Your task to perform on an android device: turn on notifications settings in the gmail app Image 0: 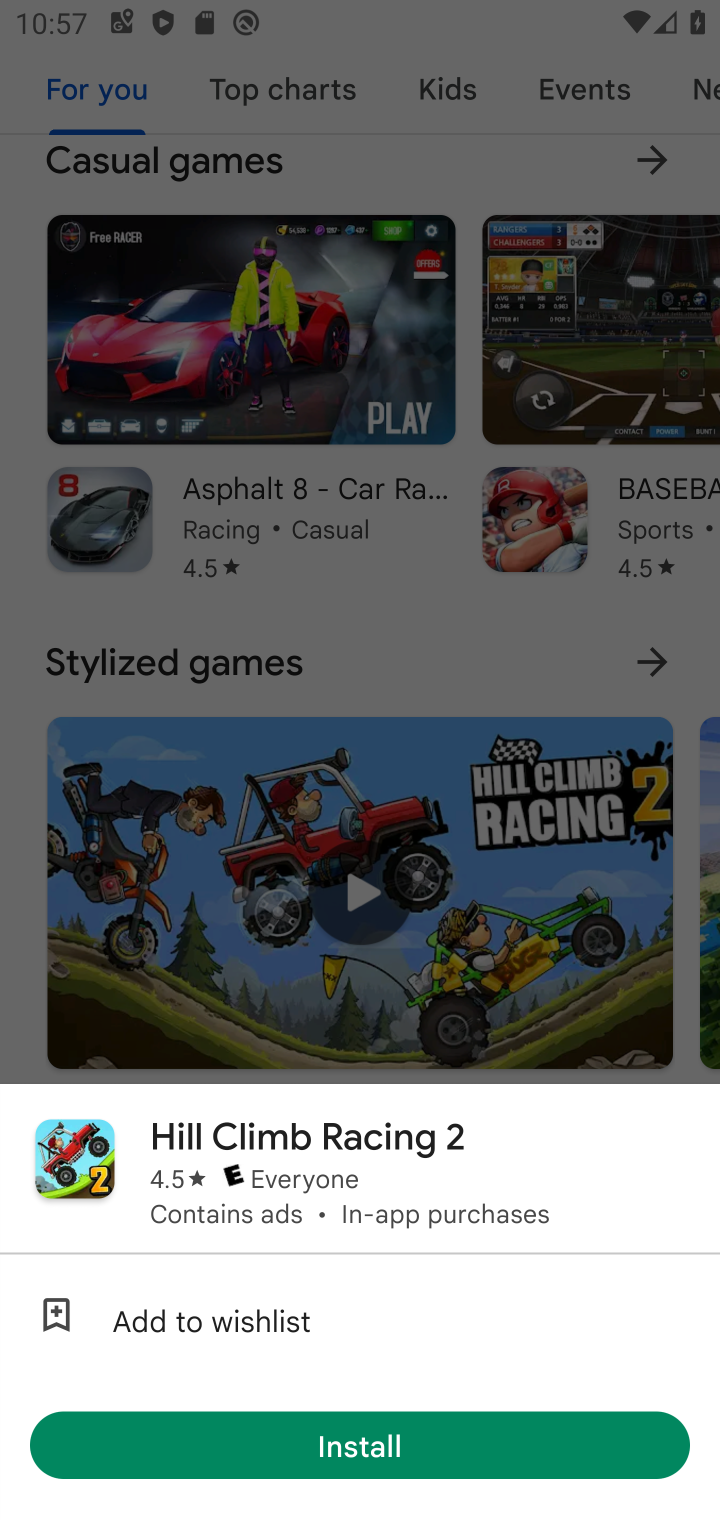
Step 0: press home button
Your task to perform on an android device: turn on notifications settings in the gmail app Image 1: 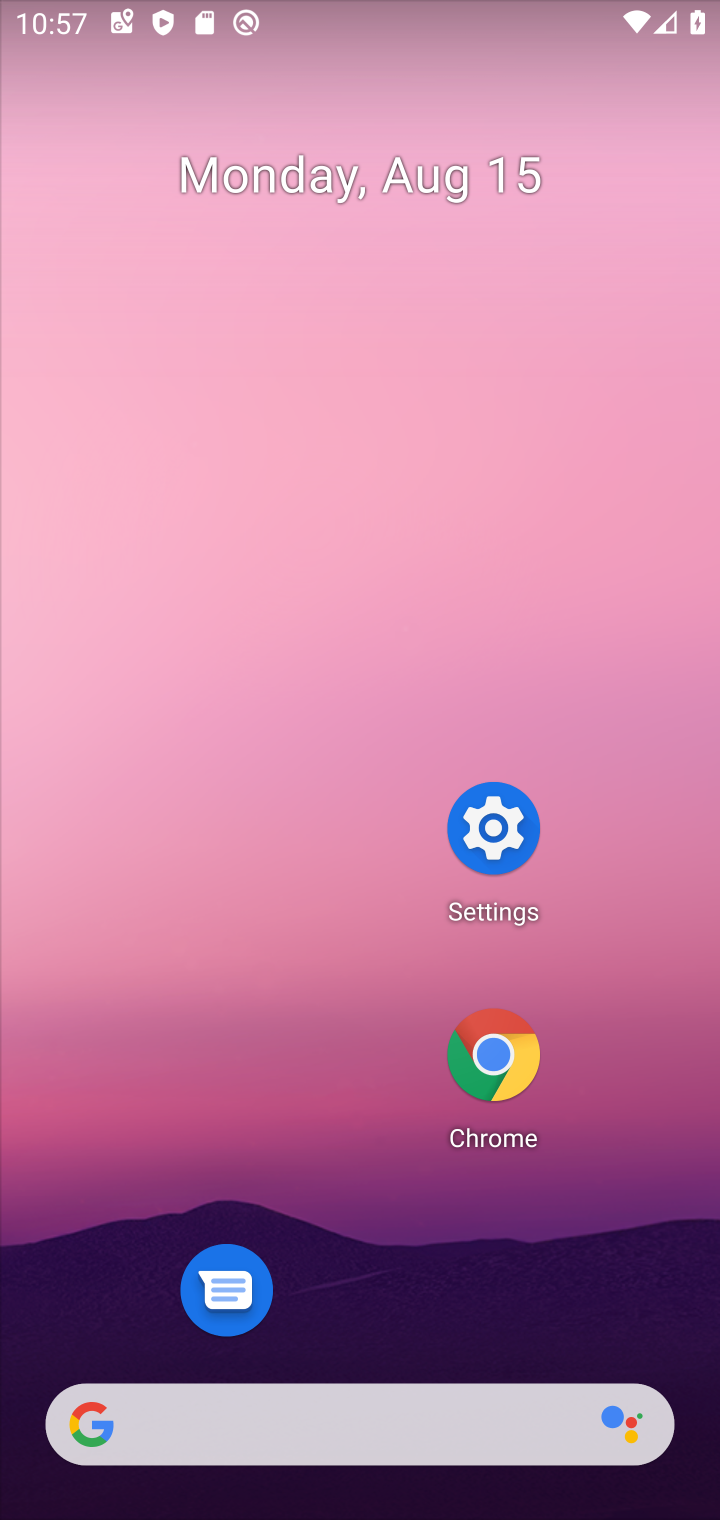
Step 1: drag from (308, 1404) to (532, 161)
Your task to perform on an android device: turn on notifications settings in the gmail app Image 2: 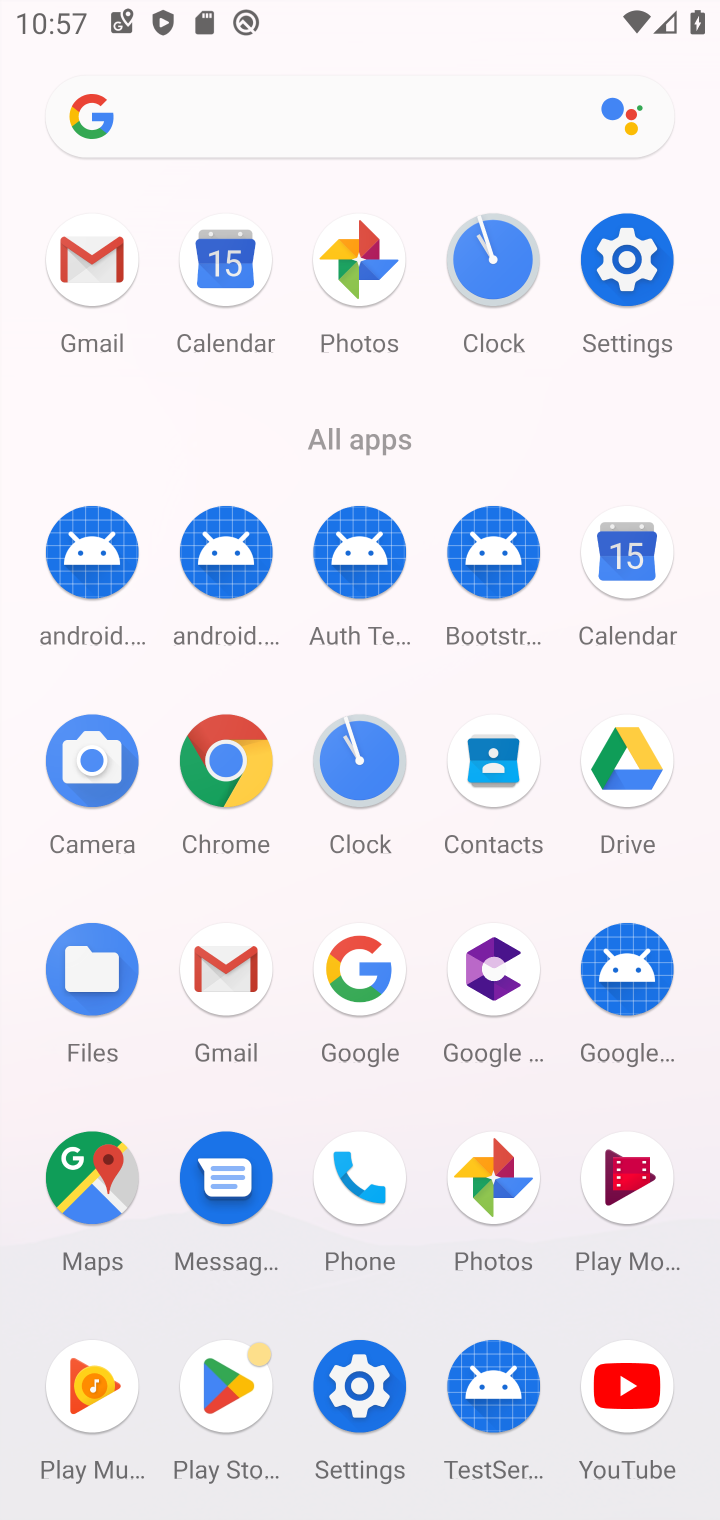
Step 2: click (237, 964)
Your task to perform on an android device: turn on notifications settings in the gmail app Image 3: 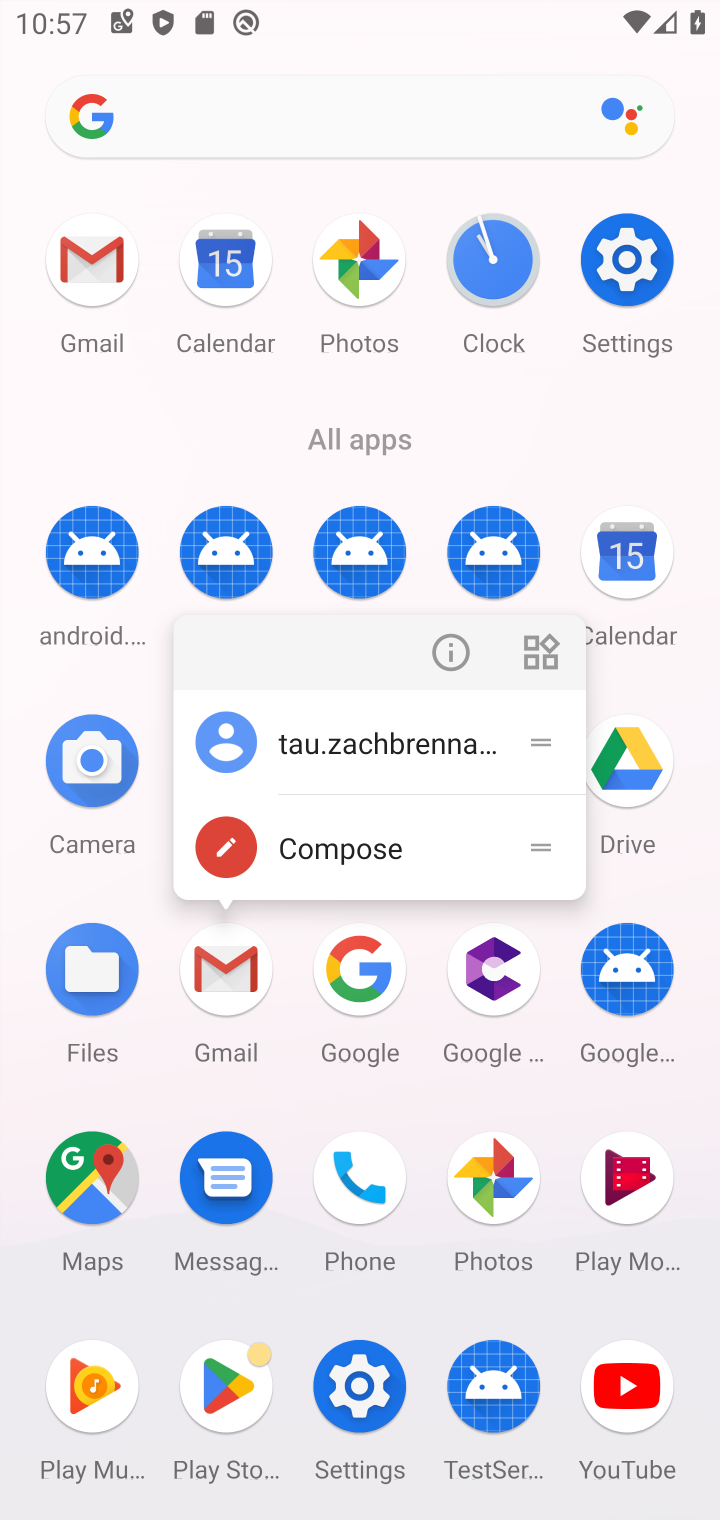
Step 3: click (237, 964)
Your task to perform on an android device: turn on notifications settings in the gmail app Image 4: 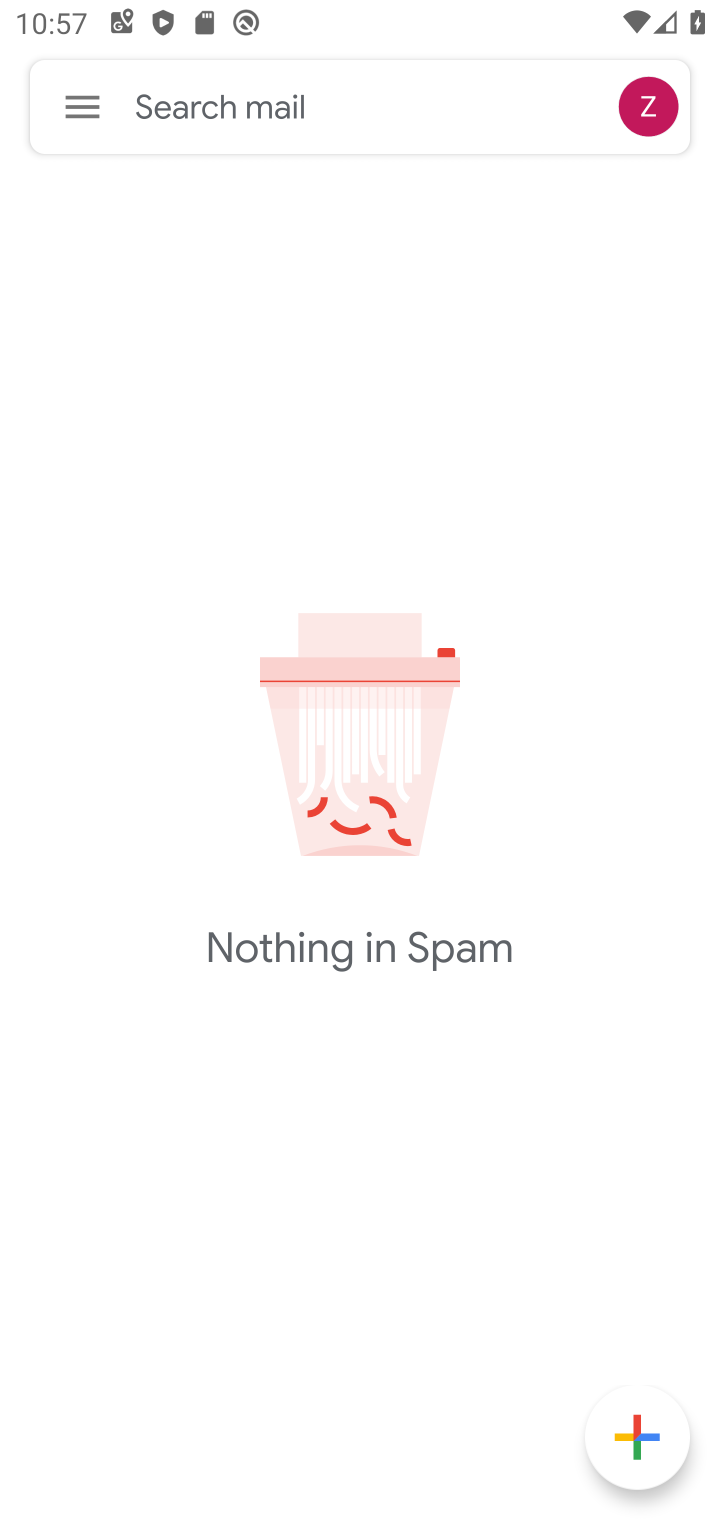
Step 4: click (85, 95)
Your task to perform on an android device: turn on notifications settings in the gmail app Image 5: 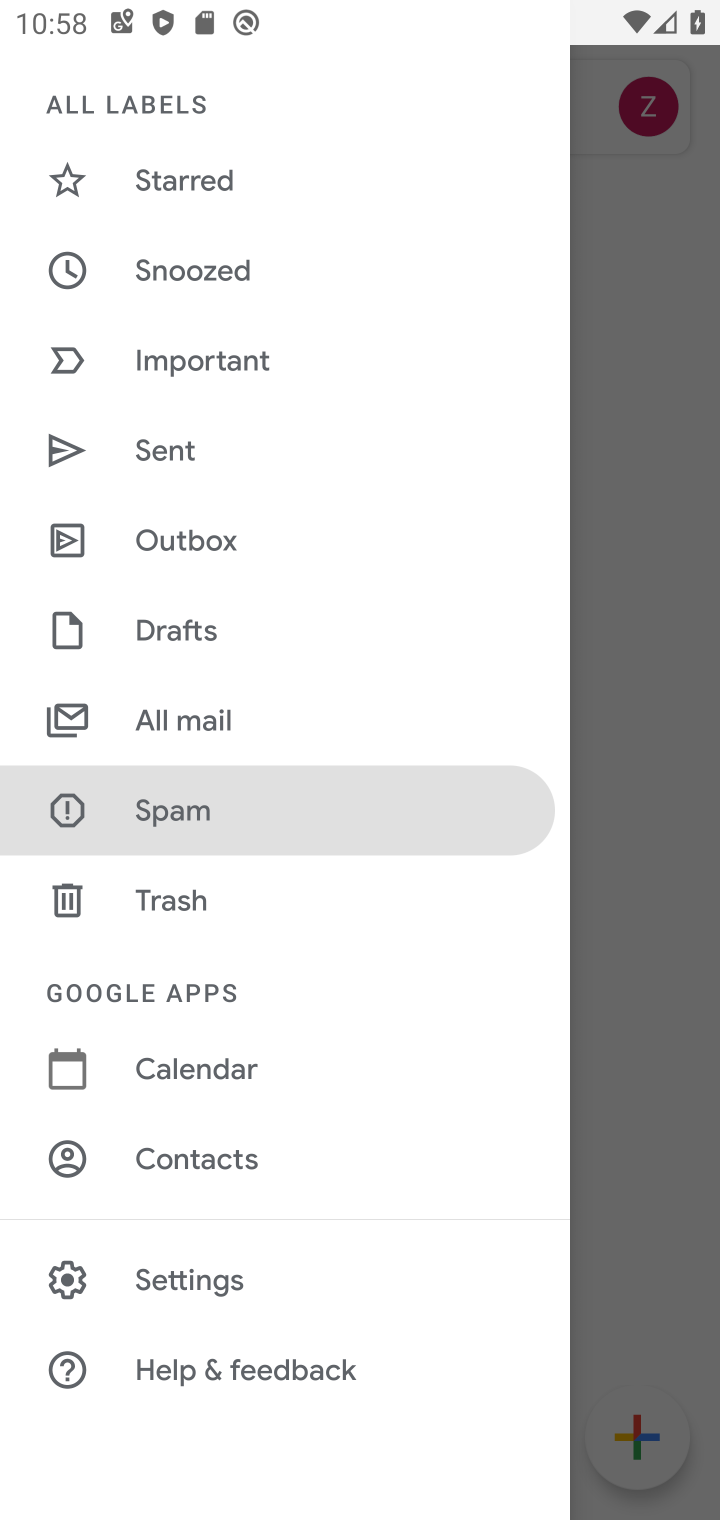
Step 5: click (194, 1282)
Your task to perform on an android device: turn on notifications settings in the gmail app Image 6: 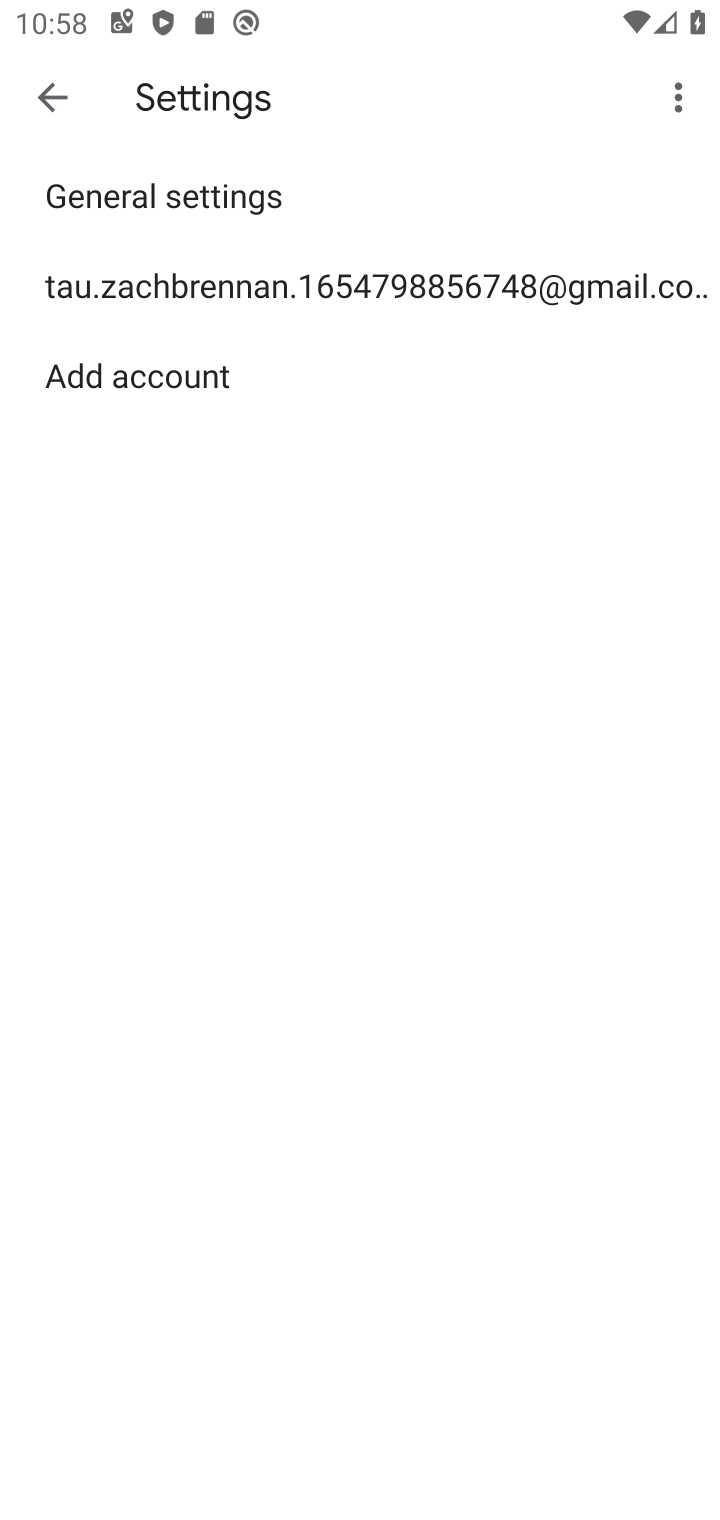
Step 6: click (359, 287)
Your task to perform on an android device: turn on notifications settings in the gmail app Image 7: 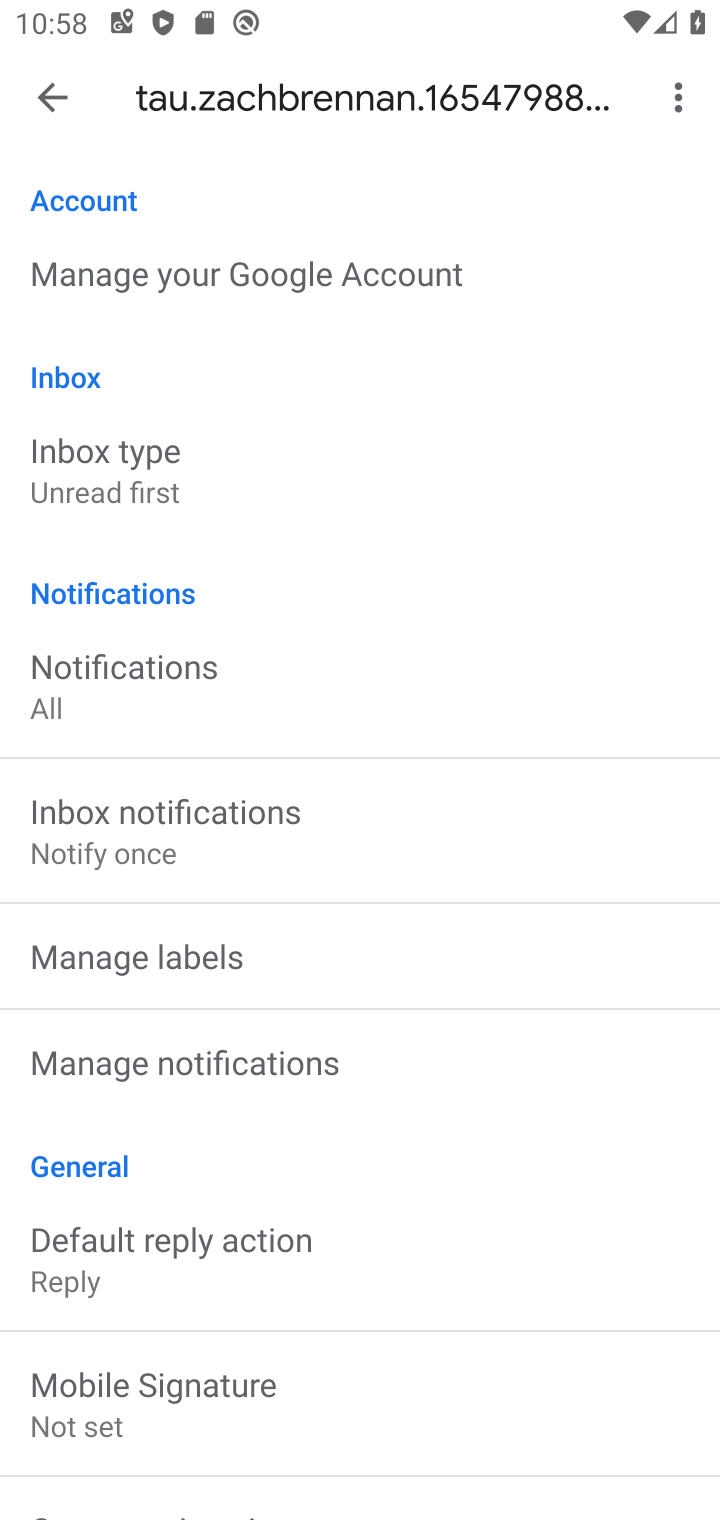
Step 7: click (172, 696)
Your task to perform on an android device: turn on notifications settings in the gmail app Image 8: 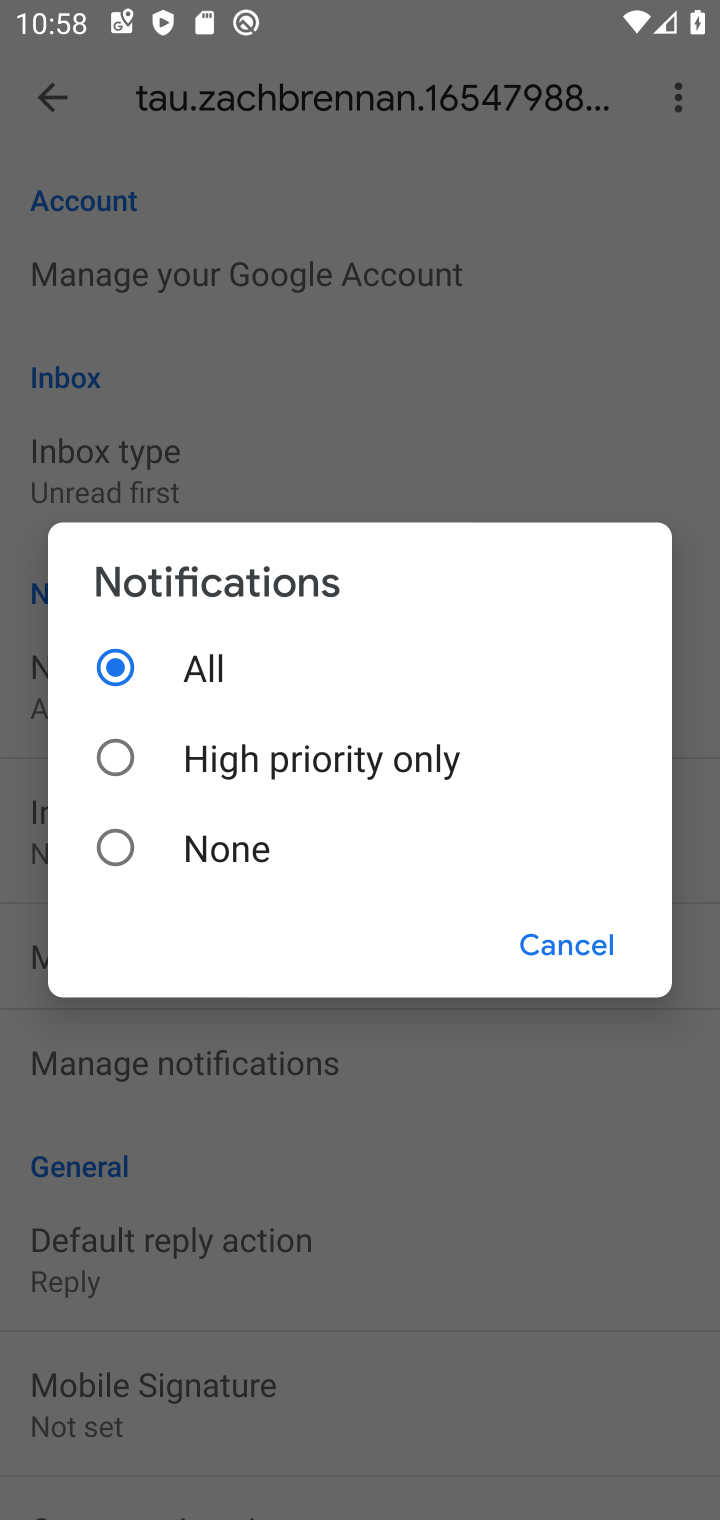
Step 8: task complete